Your task to perform on an android device: Open Wikipedia Image 0: 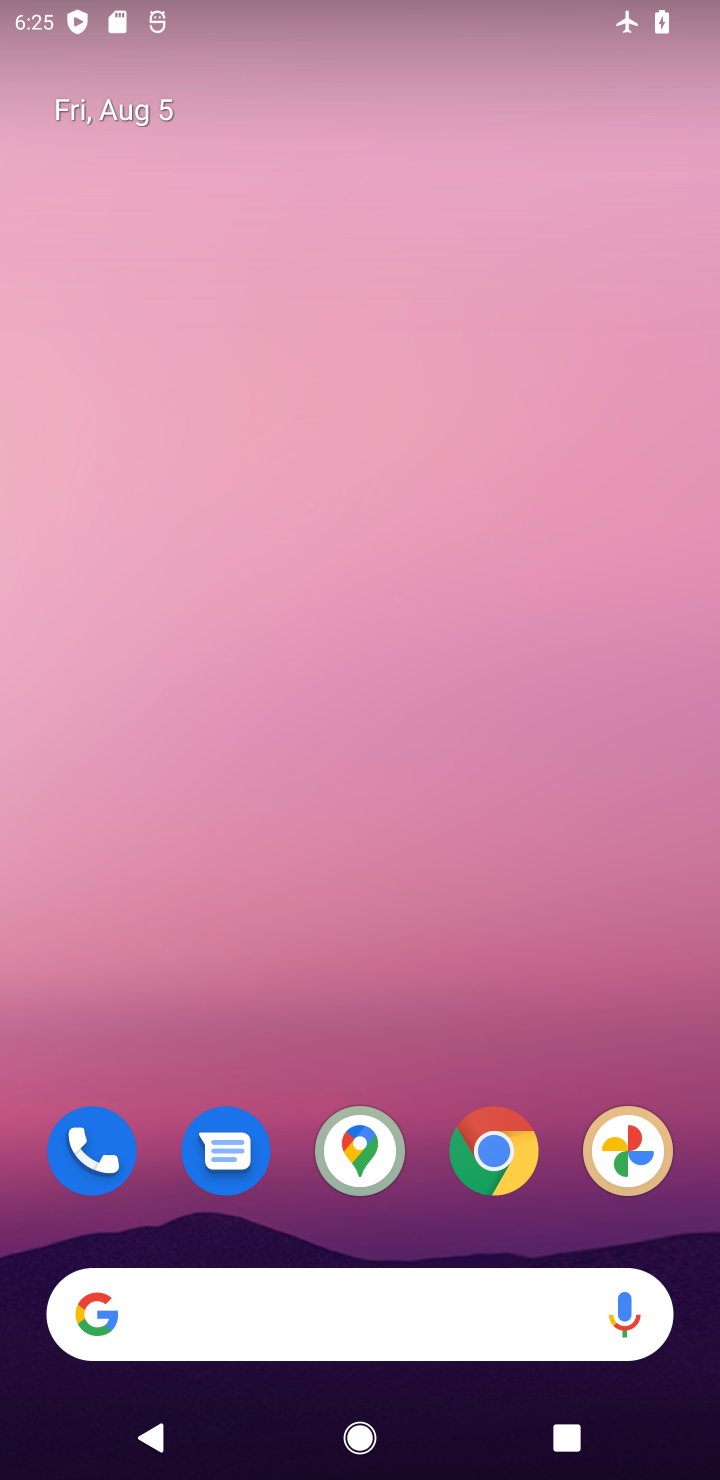
Step 0: drag from (342, 1203) to (344, 16)
Your task to perform on an android device: Open Wikipedia Image 1: 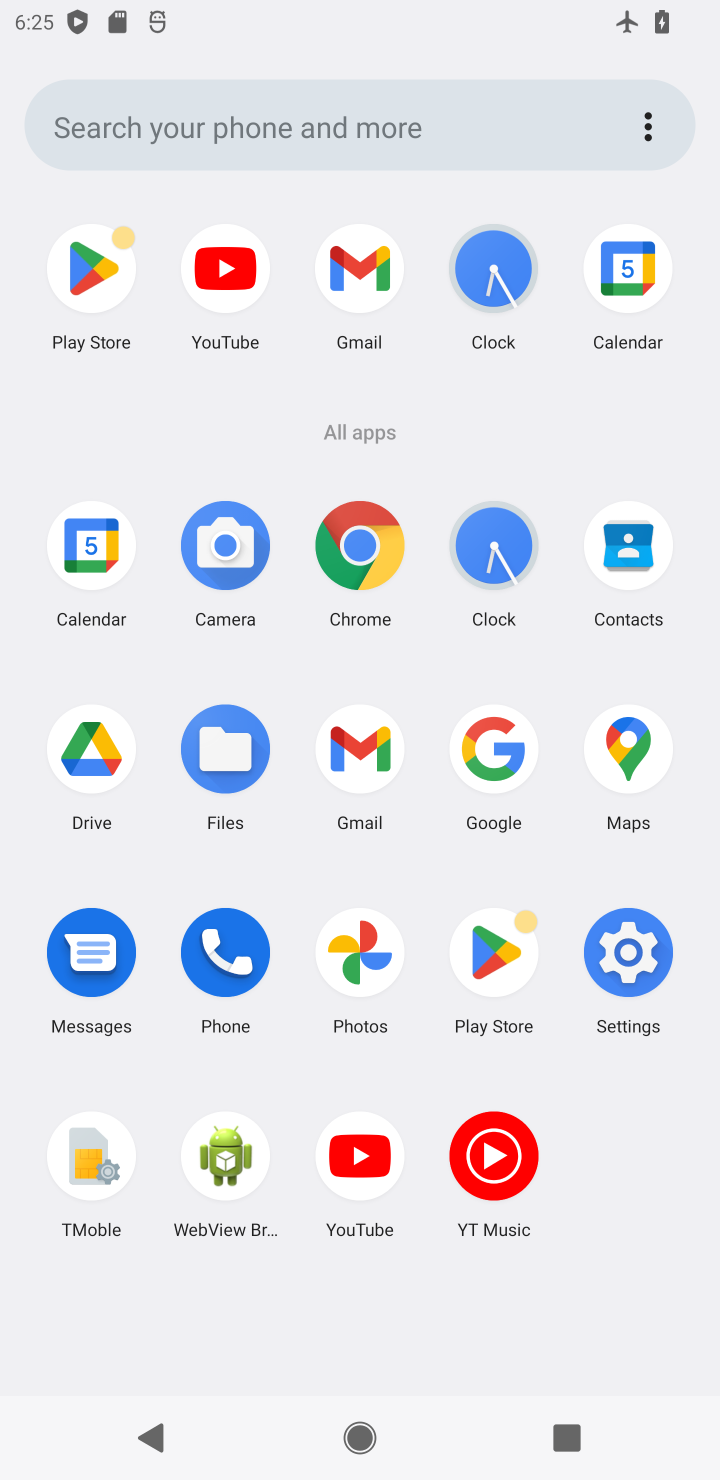
Step 1: click (337, 547)
Your task to perform on an android device: Open Wikipedia Image 2: 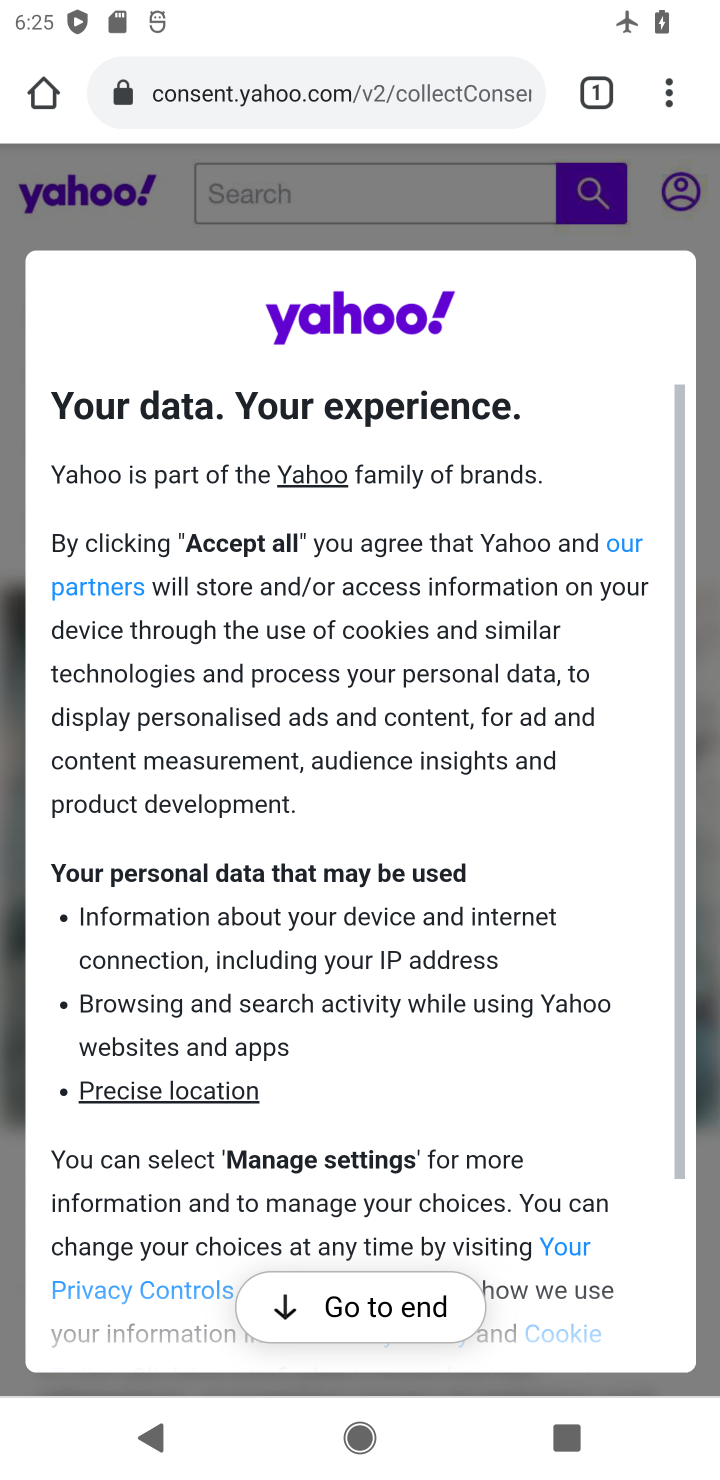
Step 2: click (556, 109)
Your task to perform on an android device: Open Wikipedia Image 3: 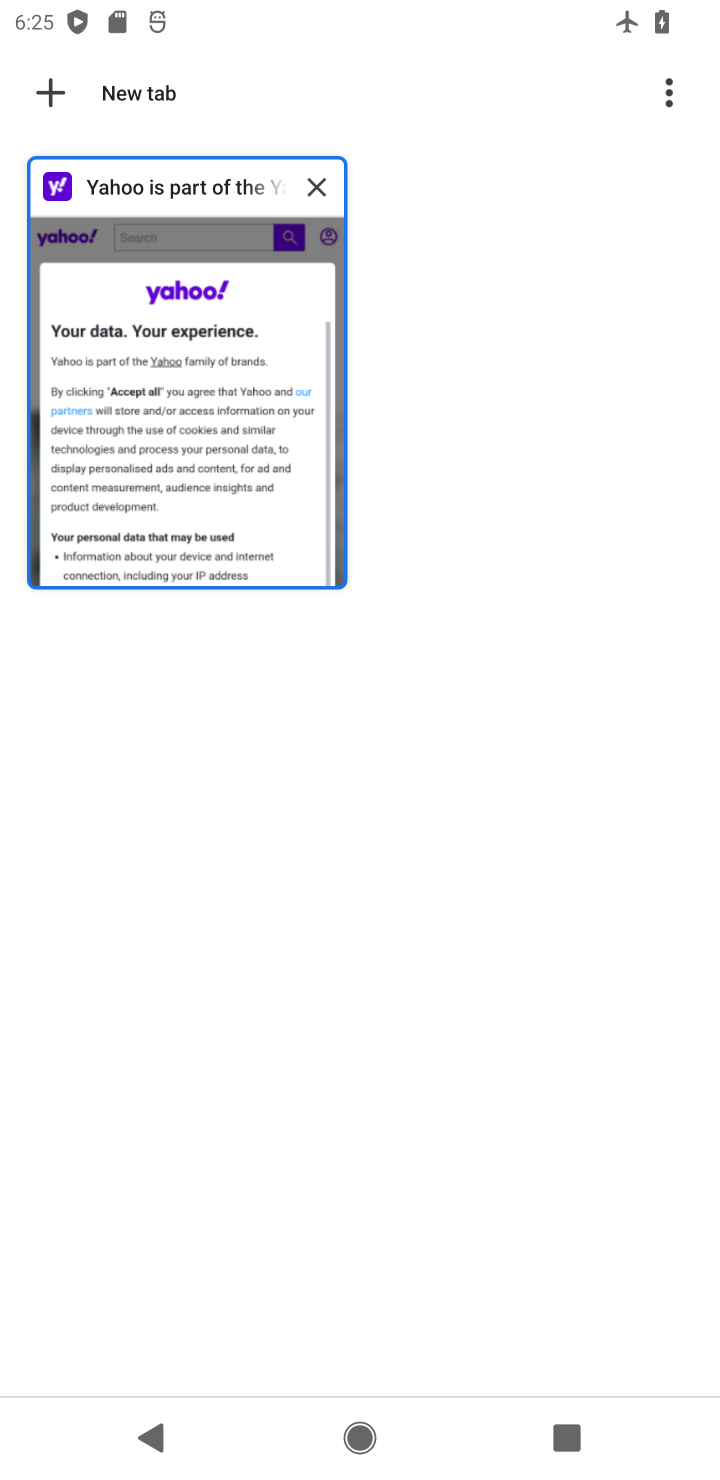
Step 3: click (53, 73)
Your task to perform on an android device: Open Wikipedia Image 4: 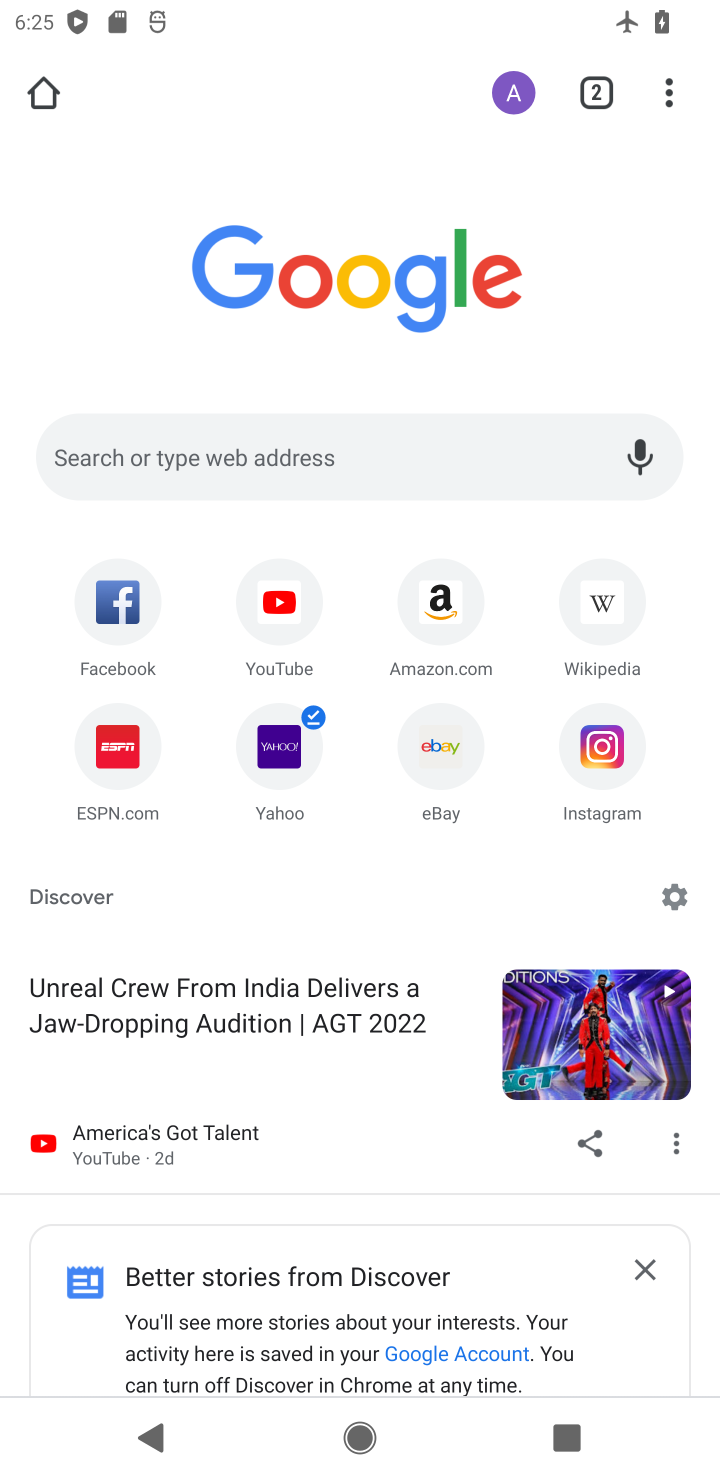
Step 4: click (629, 597)
Your task to perform on an android device: Open Wikipedia Image 5: 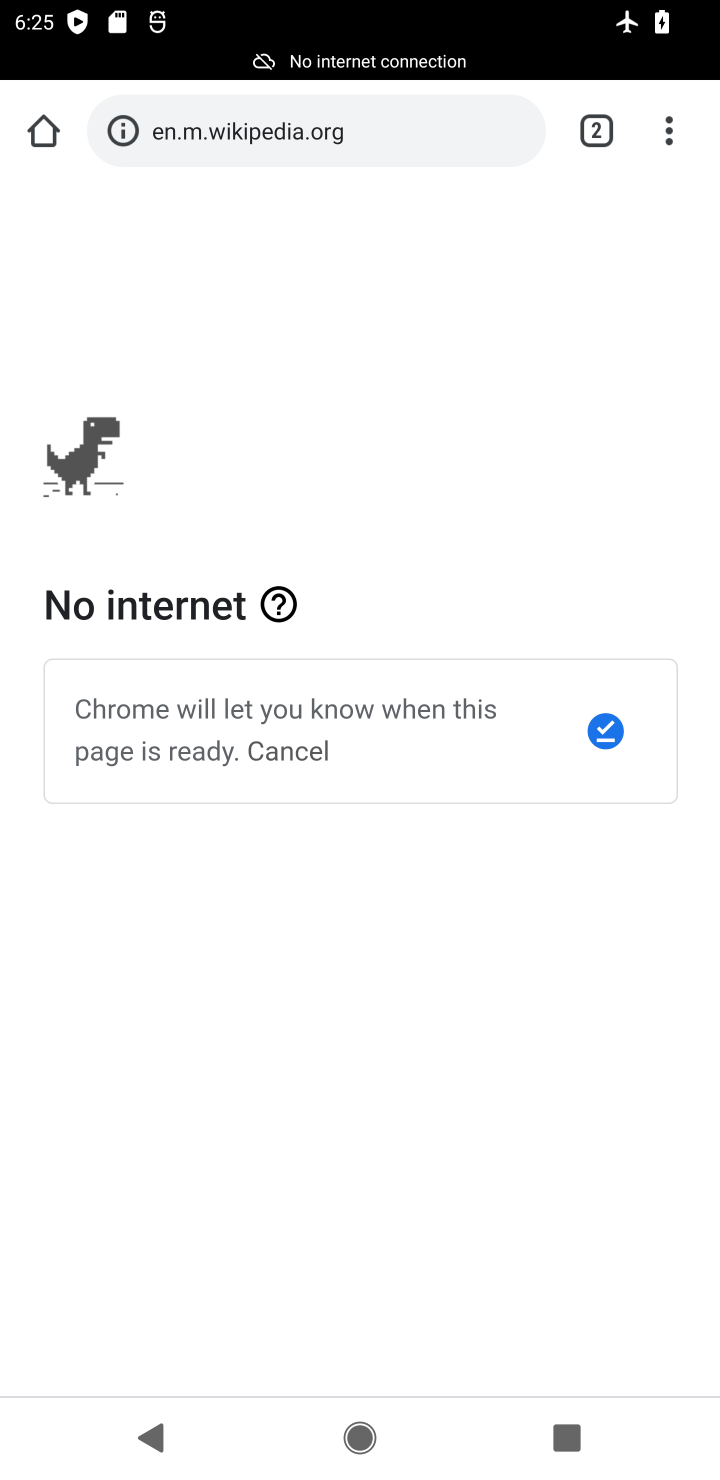
Step 5: task complete